Your task to perform on an android device: turn off improve location accuracy Image 0: 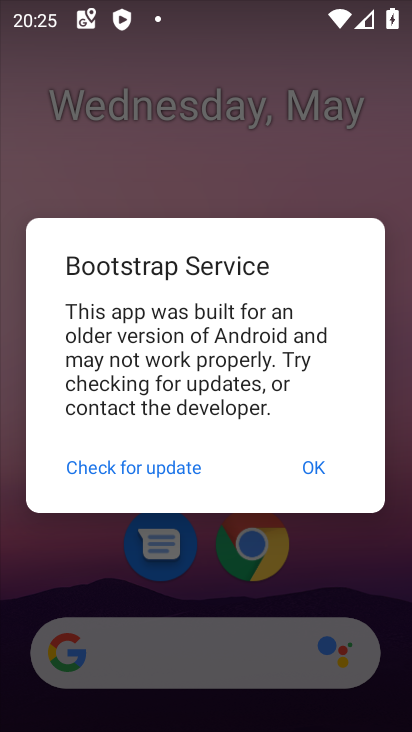
Step 0: press home button
Your task to perform on an android device: turn off improve location accuracy Image 1: 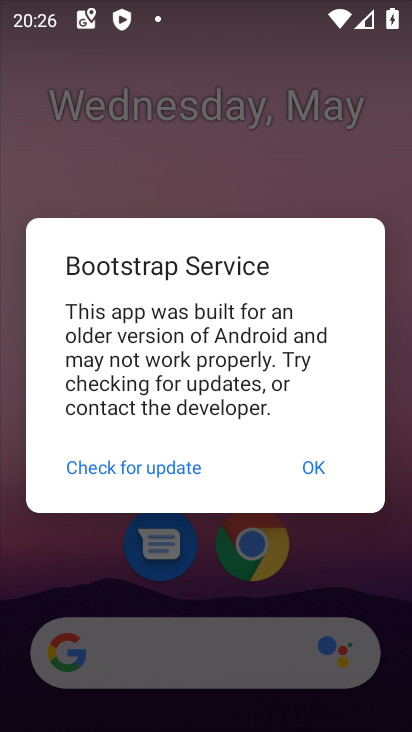
Step 1: click (312, 479)
Your task to perform on an android device: turn off improve location accuracy Image 2: 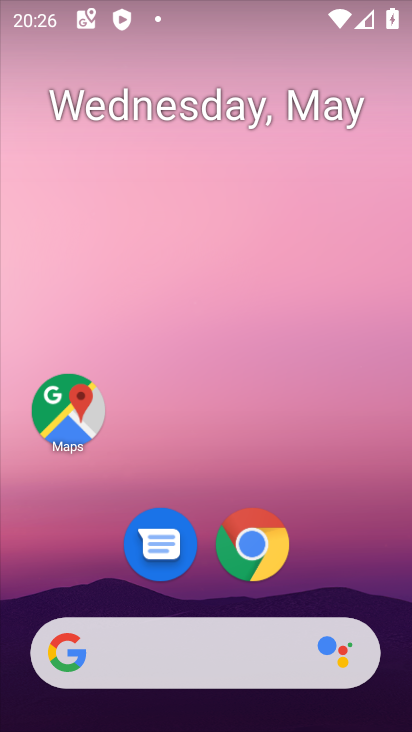
Step 2: drag from (193, 599) to (209, 109)
Your task to perform on an android device: turn off improve location accuracy Image 3: 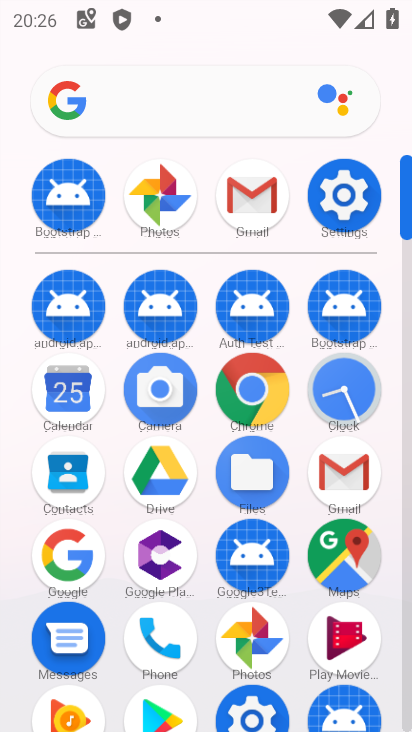
Step 3: click (321, 190)
Your task to perform on an android device: turn off improve location accuracy Image 4: 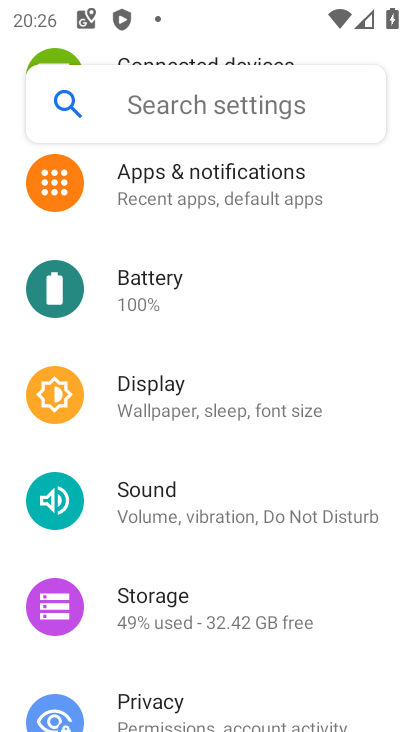
Step 4: drag from (140, 668) to (219, 231)
Your task to perform on an android device: turn off improve location accuracy Image 5: 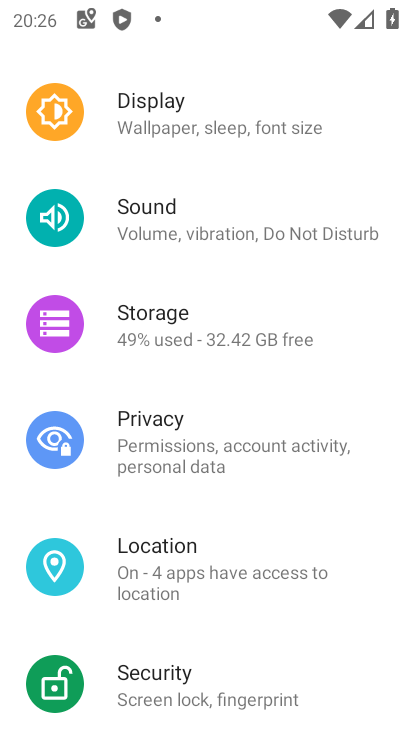
Step 5: click (182, 548)
Your task to perform on an android device: turn off improve location accuracy Image 6: 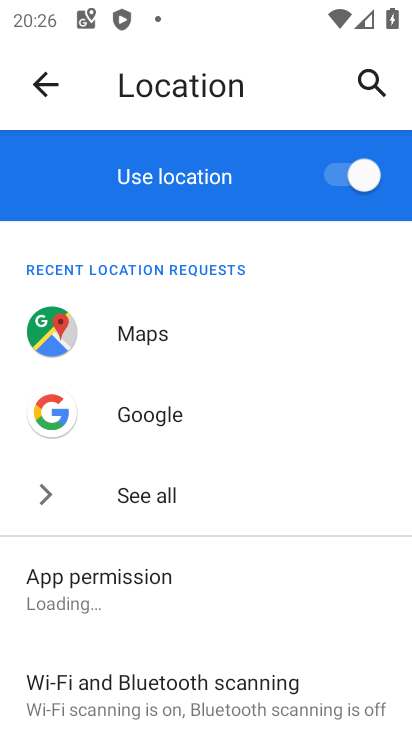
Step 6: drag from (116, 695) to (166, 213)
Your task to perform on an android device: turn off improve location accuracy Image 7: 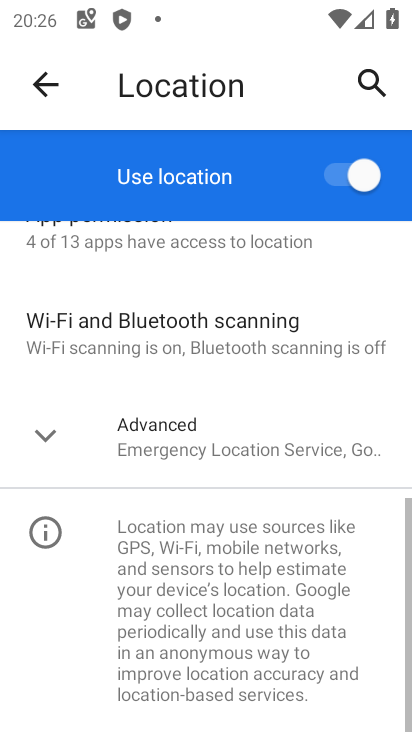
Step 7: click (162, 421)
Your task to perform on an android device: turn off improve location accuracy Image 8: 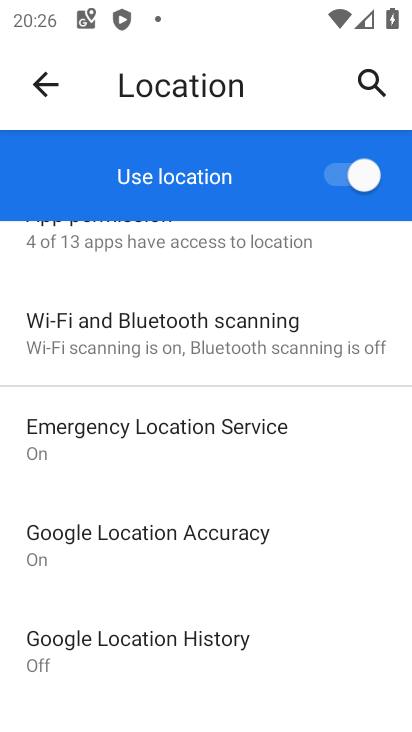
Step 8: click (141, 521)
Your task to perform on an android device: turn off improve location accuracy Image 9: 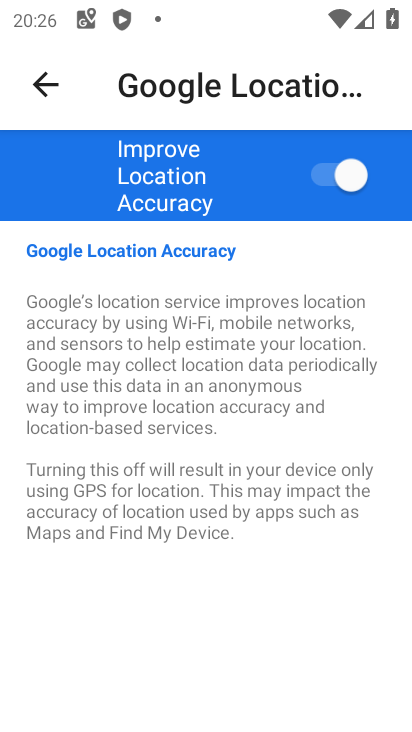
Step 9: click (325, 174)
Your task to perform on an android device: turn off improve location accuracy Image 10: 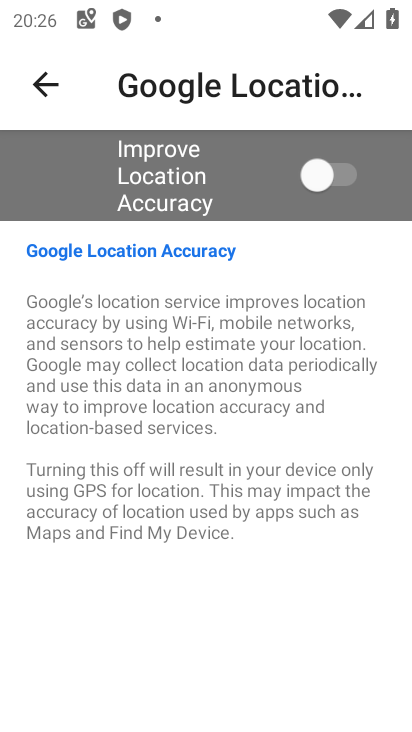
Step 10: task complete